Your task to perform on an android device: Open privacy settings Image 0: 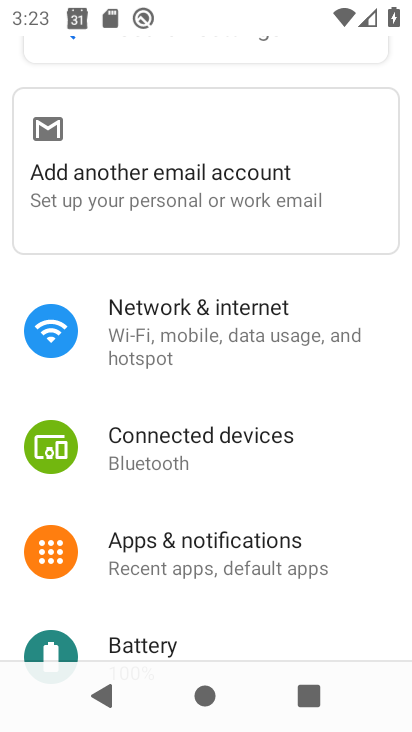
Step 0: press home button
Your task to perform on an android device: Open privacy settings Image 1: 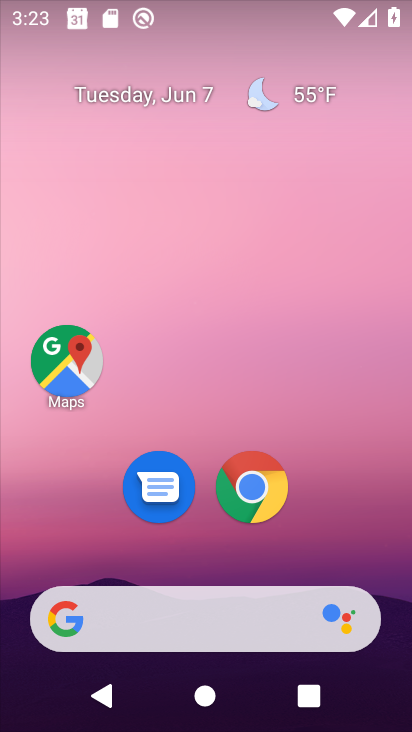
Step 1: drag from (309, 507) to (294, 58)
Your task to perform on an android device: Open privacy settings Image 2: 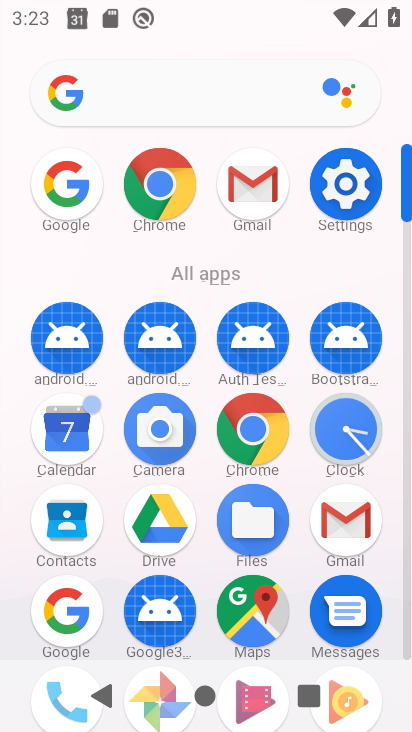
Step 2: click (344, 186)
Your task to perform on an android device: Open privacy settings Image 3: 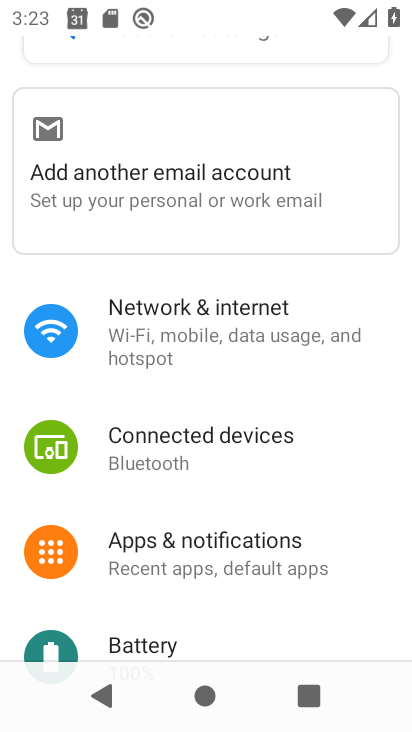
Step 3: drag from (238, 626) to (235, 149)
Your task to perform on an android device: Open privacy settings Image 4: 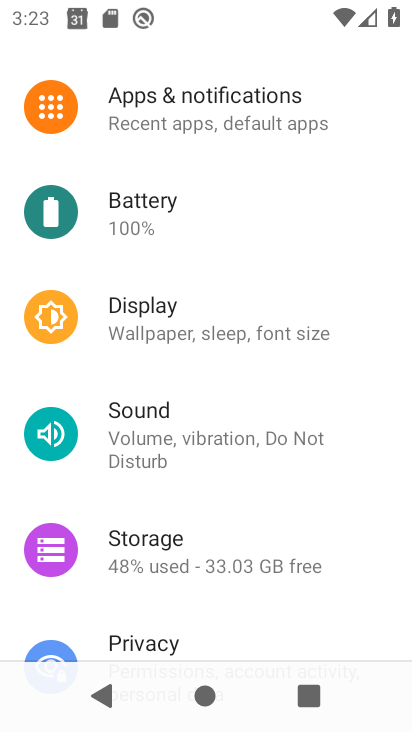
Step 4: click (148, 640)
Your task to perform on an android device: Open privacy settings Image 5: 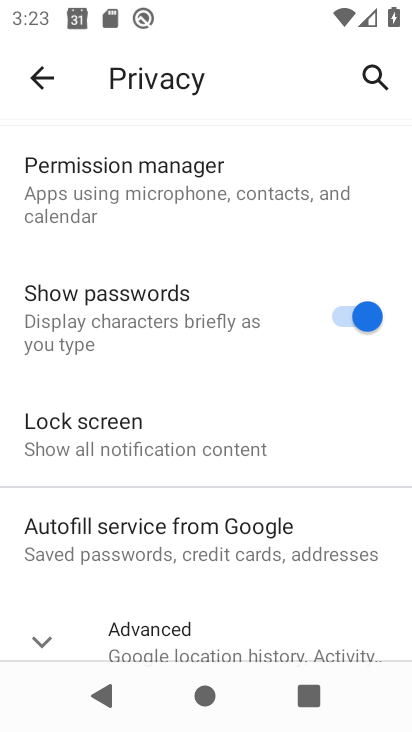
Step 5: task complete